Your task to perform on an android device: Go to ESPN.com Image 0: 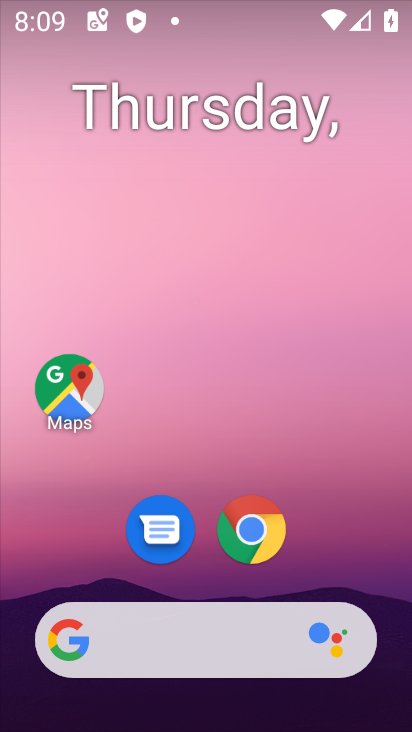
Step 0: click (252, 528)
Your task to perform on an android device: Go to ESPN.com Image 1: 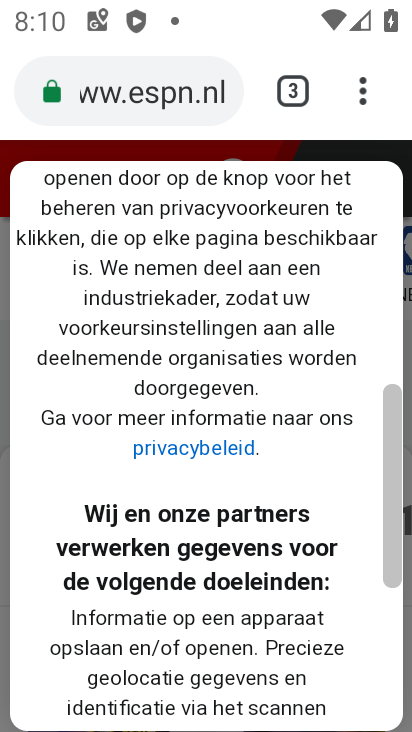
Step 1: drag from (202, 655) to (189, 358)
Your task to perform on an android device: Go to ESPN.com Image 2: 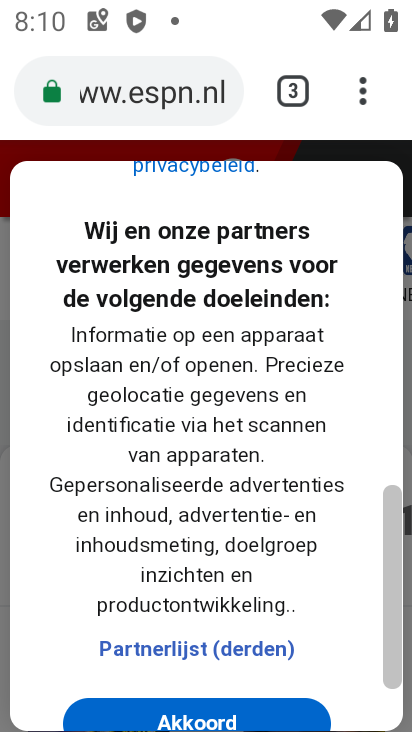
Step 2: drag from (229, 646) to (240, 302)
Your task to perform on an android device: Go to ESPN.com Image 3: 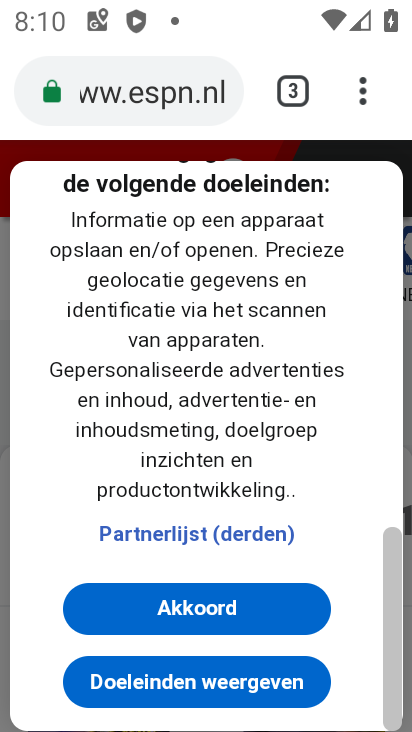
Step 3: click (226, 604)
Your task to perform on an android device: Go to ESPN.com Image 4: 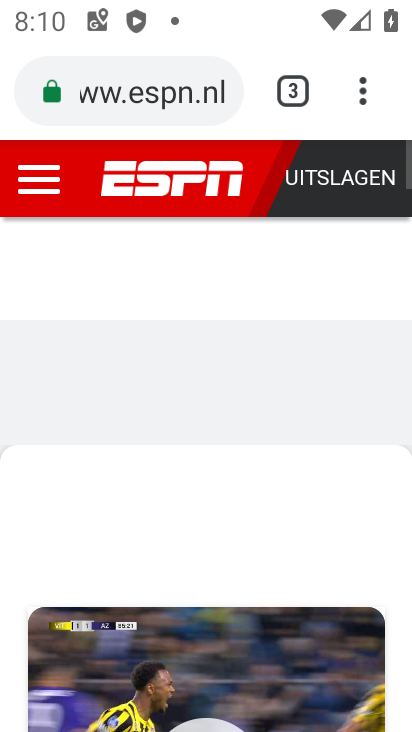
Step 4: task complete